Your task to perform on an android device: visit the assistant section in the google photos Image 0: 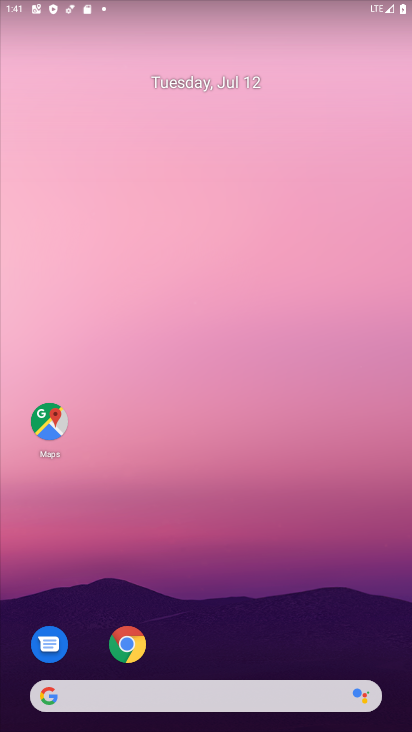
Step 0: drag from (192, 677) to (150, 139)
Your task to perform on an android device: visit the assistant section in the google photos Image 1: 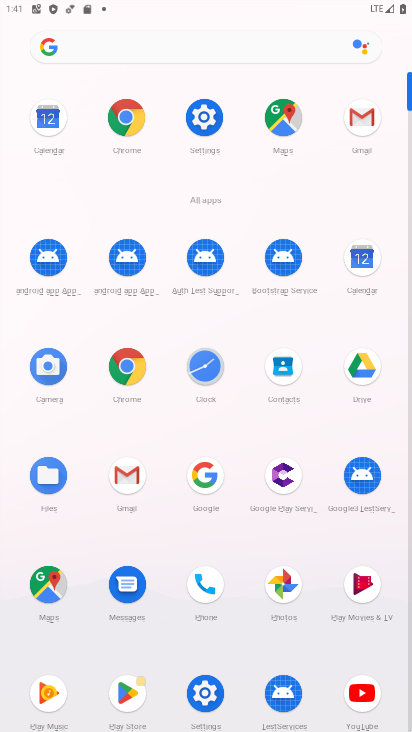
Step 1: click (294, 577)
Your task to perform on an android device: visit the assistant section in the google photos Image 2: 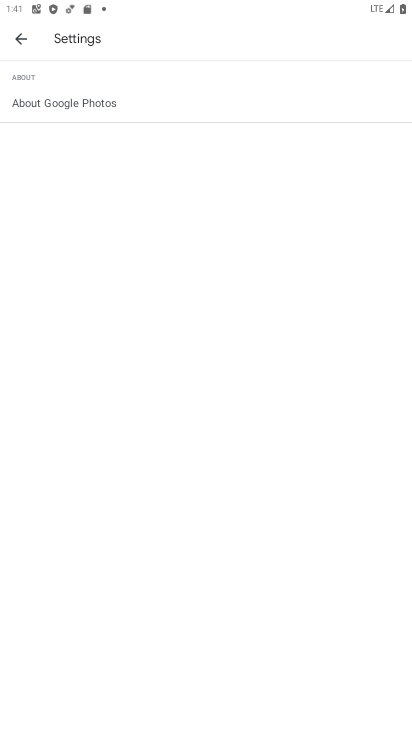
Step 2: click (14, 36)
Your task to perform on an android device: visit the assistant section in the google photos Image 3: 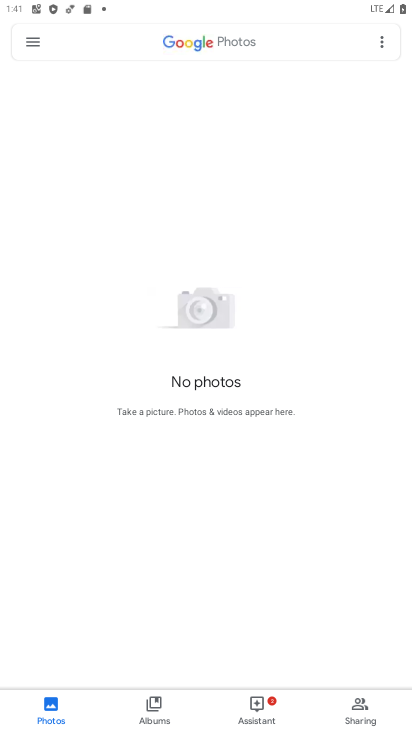
Step 3: click (256, 708)
Your task to perform on an android device: visit the assistant section in the google photos Image 4: 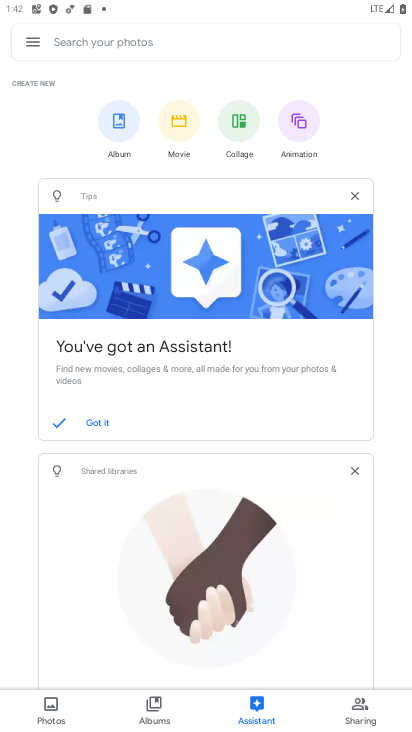
Step 4: task complete